Your task to perform on an android device: Search for Mexican restaurants on Maps Image 0: 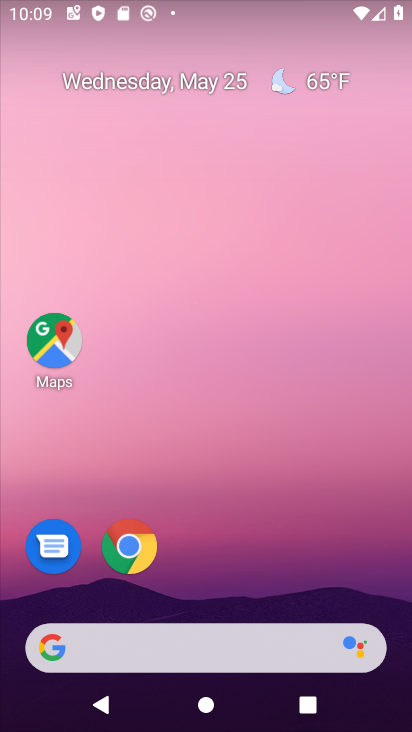
Step 0: drag from (246, 529) to (231, 34)
Your task to perform on an android device: Search for Mexican restaurants on Maps Image 1: 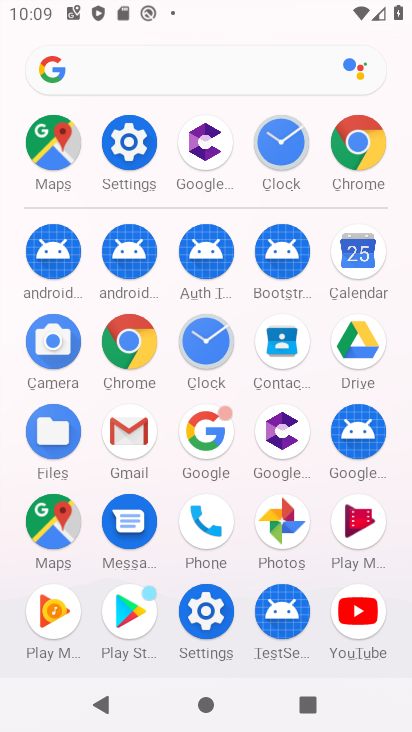
Step 1: drag from (15, 590) to (49, 242)
Your task to perform on an android device: Search for Mexican restaurants on Maps Image 2: 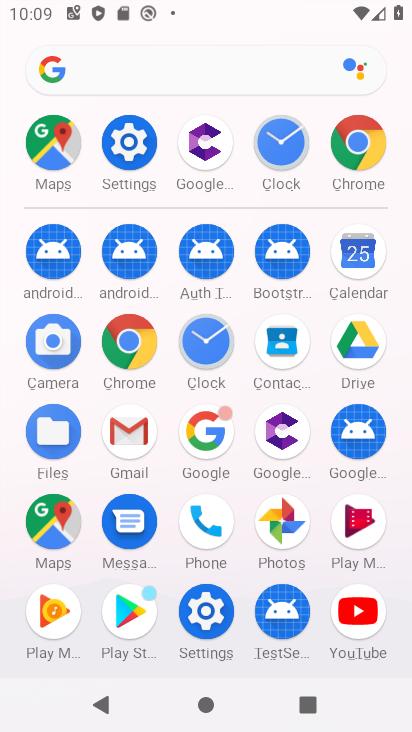
Step 2: click (45, 516)
Your task to perform on an android device: Search for Mexican restaurants on Maps Image 3: 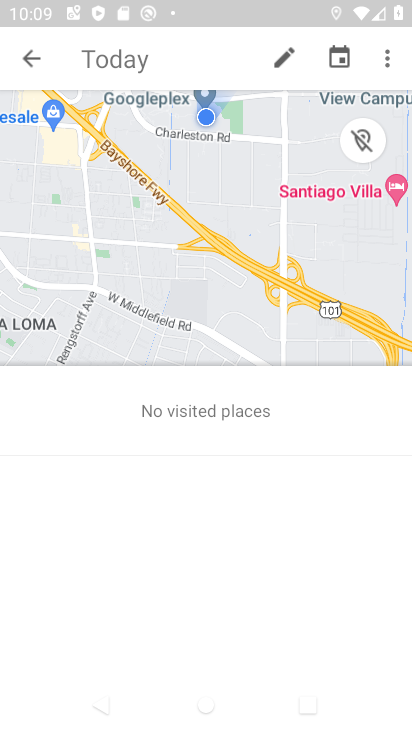
Step 3: click (21, 49)
Your task to perform on an android device: Search for Mexican restaurants on Maps Image 4: 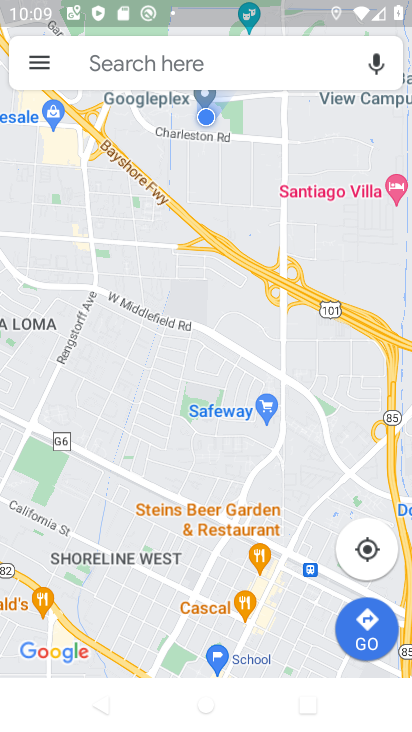
Step 4: click (249, 49)
Your task to perform on an android device: Search for Mexican restaurants on Maps Image 5: 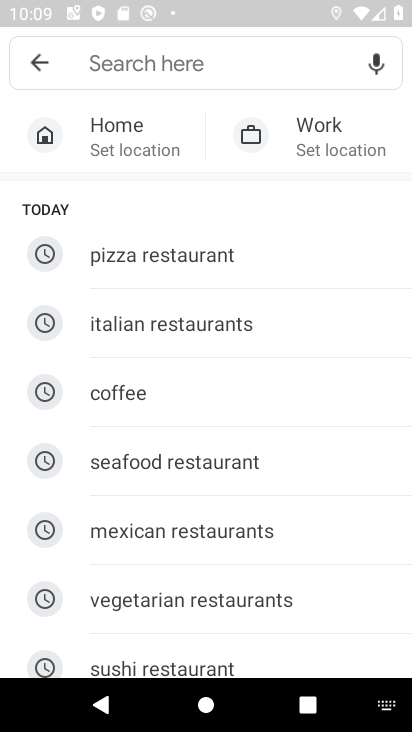
Step 5: click (212, 537)
Your task to perform on an android device: Search for Mexican restaurants on Maps Image 6: 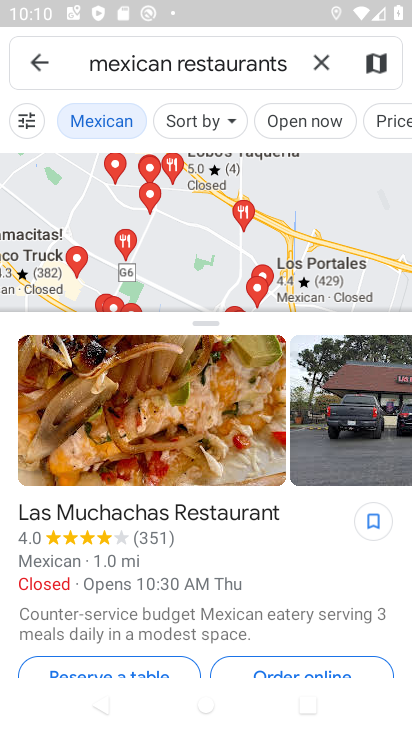
Step 6: task complete